Your task to perform on an android device: When is my next meeting? Image 0: 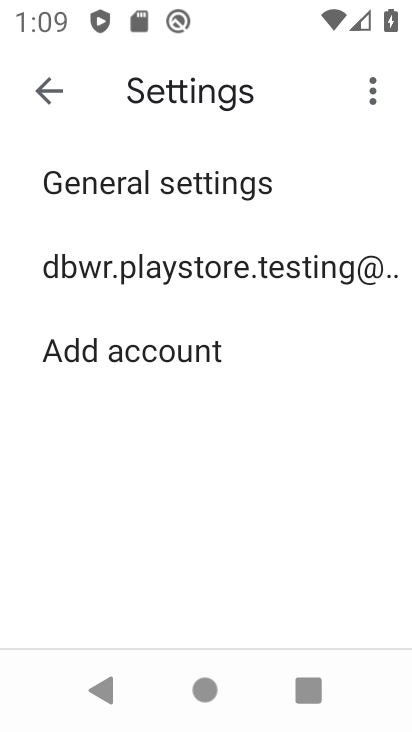
Step 0: press home button
Your task to perform on an android device: When is my next meeting? Image 1: 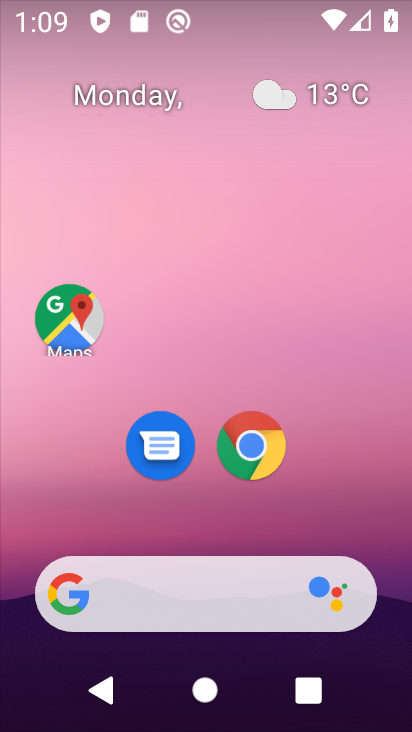
Step 1: drag from (317, 220) to (287, 2)
Your task to perform on an android device: When is my next meeting? Image 2: 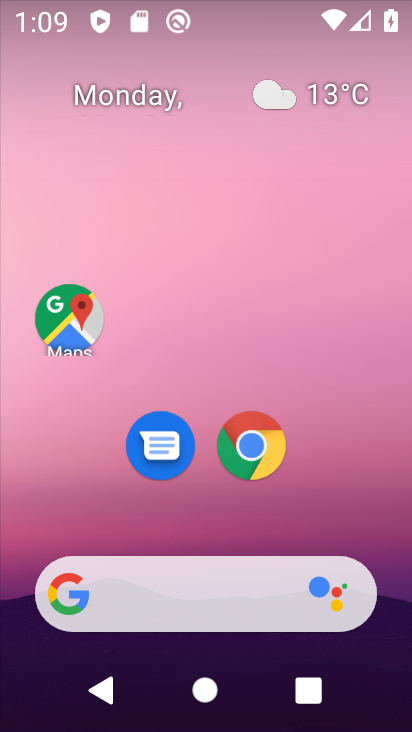
Step 2: drag from (325, 464) to (276, 85)
Your task to perform on an android device: When is my next meeting? Image 3: 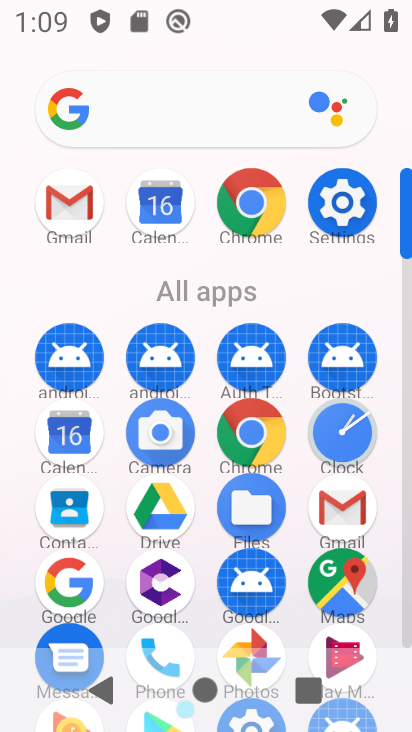
Step 3: click (50, 466)
Your task to perform on an android device: When is my next meeting? Image 4: 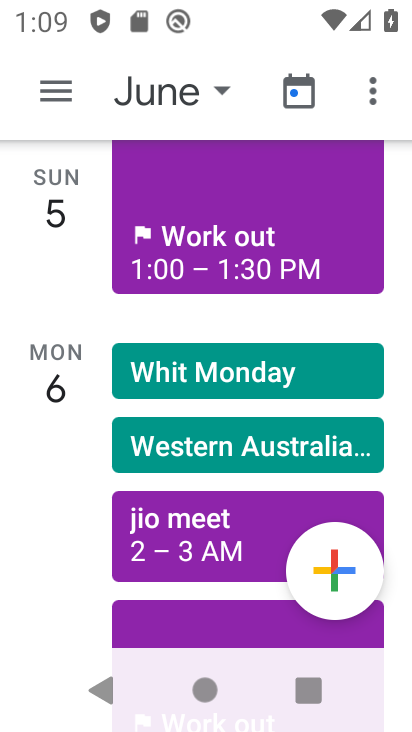
Step 4: task complete